Your task to perform on an android device: turn off data saver in the chrome app Image 0: 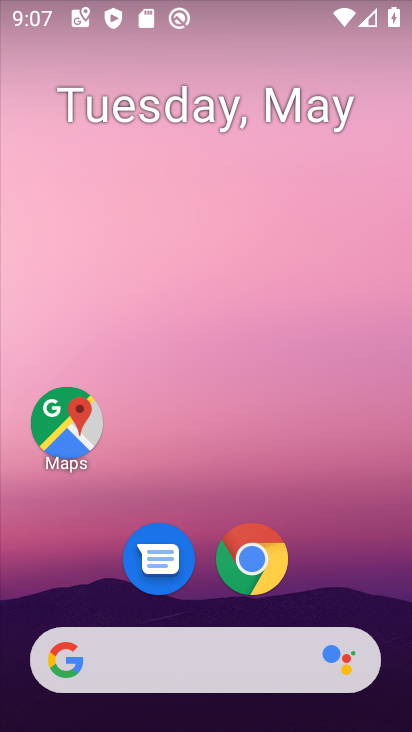
Step 0: click (258, 550)
Your task to perform on an android device: turn off data saver in the chrome app Image 1: 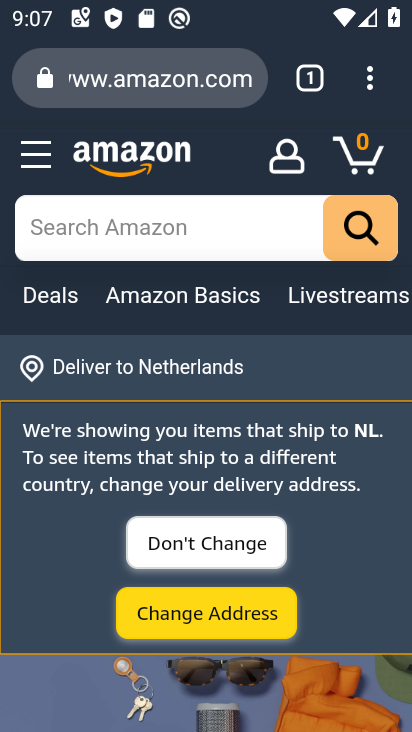
Step 1: press home button
Your task to perform on an android device: turn off data saver in the chrome app Image 2: 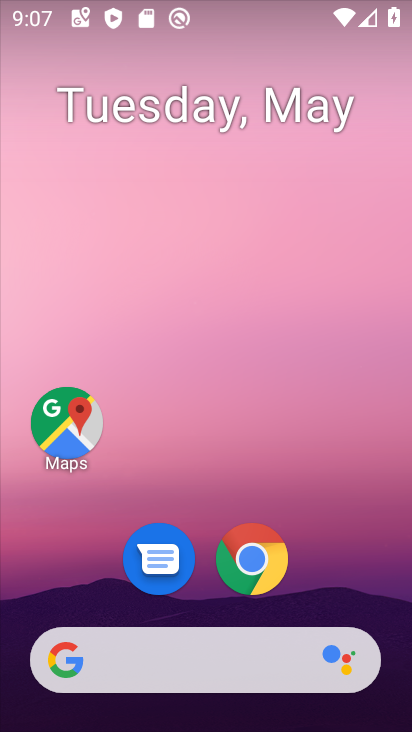
Step 2: click (256, 565)
Your task to perform on an android device: turn off data saver in the chrome app Image 3: 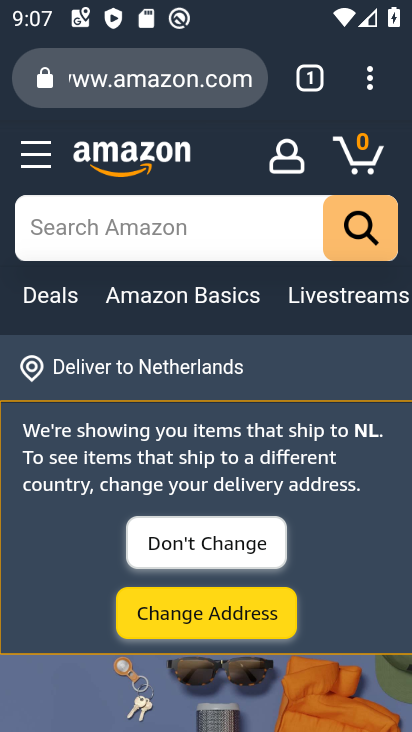
Step 3: click (378, 77)
Your task to perform on an android device: turn off data saver in the chrome app Image 4: 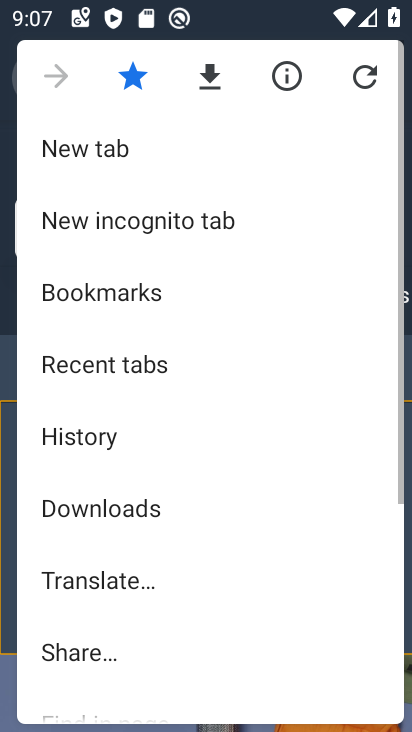
Step 4: drag from (196, 575) to (237, 12)
Your task to perform on an android device: turn off data saver in the chrome app Image 5: 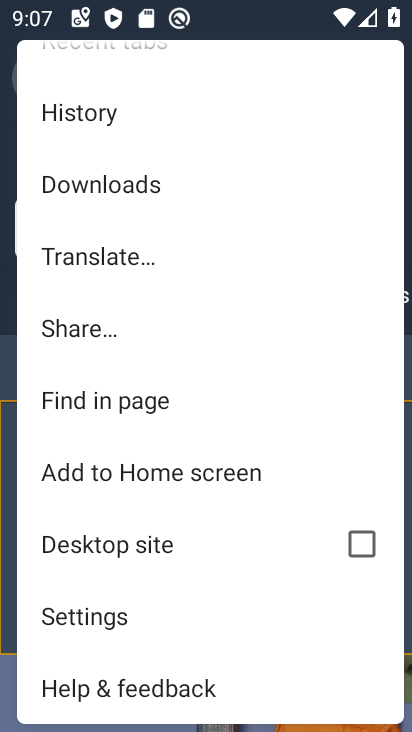
Step 5: click (109, 622)
Your task to perform on an android device: turn off data saver in the chrome app Image 6: 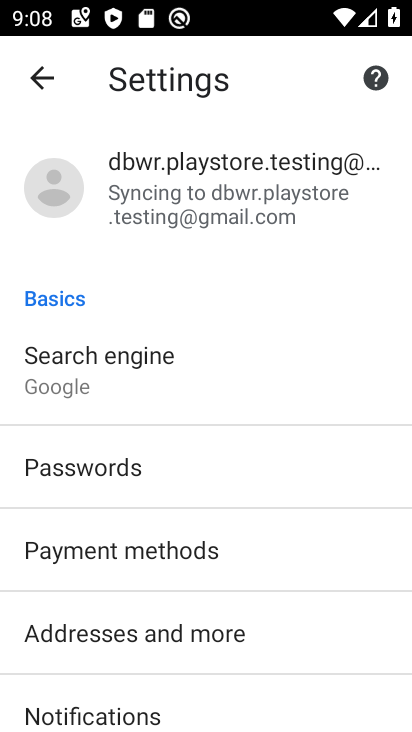
Step 6: drag from (215, 544) to (249, 91)
Your task to perform on an android device: turn off data saver in the chrome app Image 7: 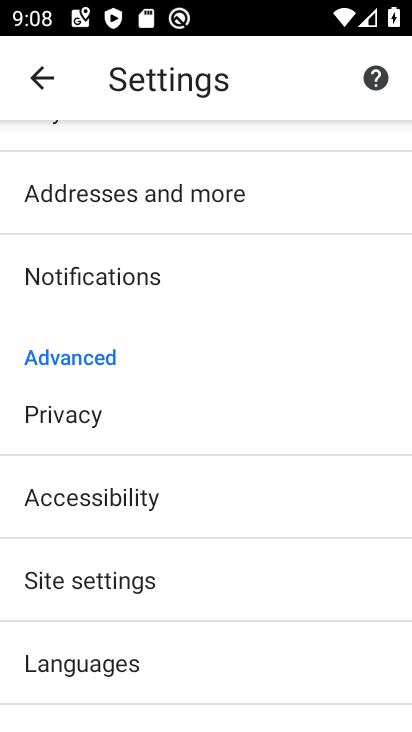
Step 7: drag from (220, 595) to (251, 216)
Your task to perform on an android device: turn off data saver in the chrome app Image 8: 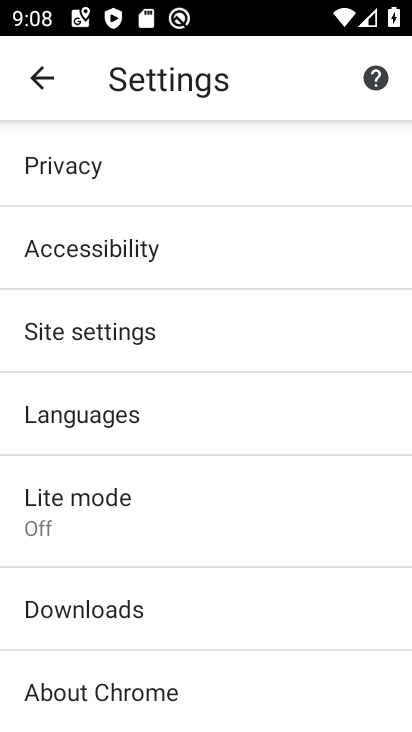
Step 8: click (109, 534)
Your task to perform on an android device: turn off data saver in the chrome app Image 9: 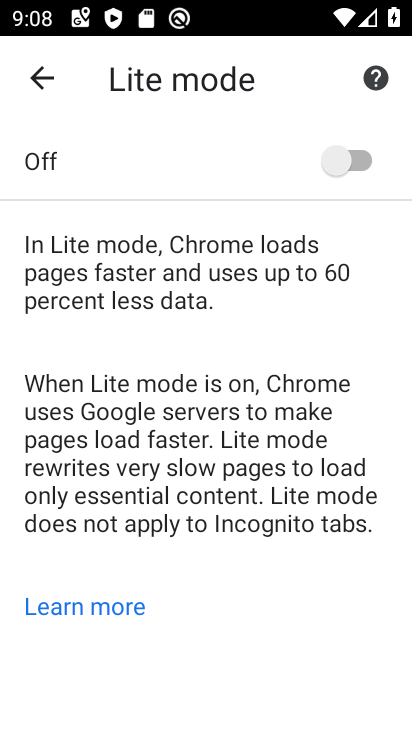
Step 9: task complete